Your task to perform on an android device: Open Google Chrome Image 0: 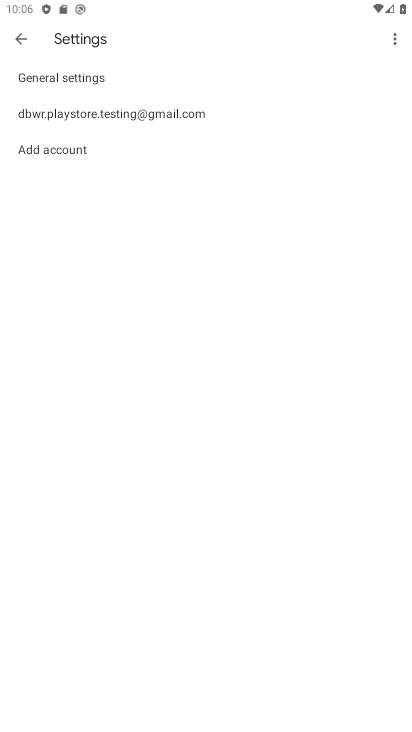
Step 0: press home button
Your task to perform on an android device: Open Google Chrome Image 1: 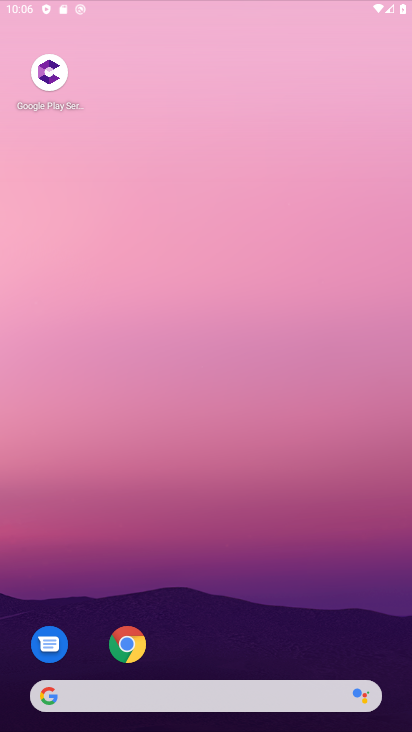
Step 1: drag from (373, 642) to (300, 54)
Your task to perform on an android device: Open Google Chrome Image 2: 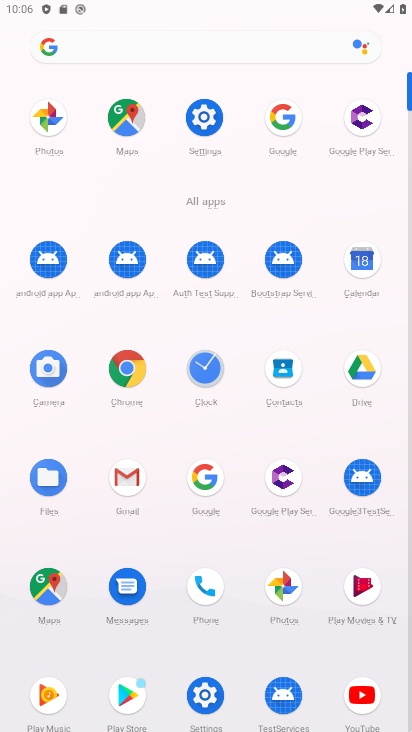
Step 2: click (119, 370)
Your task to perform on an android device: Open Google Chrome Image 3: 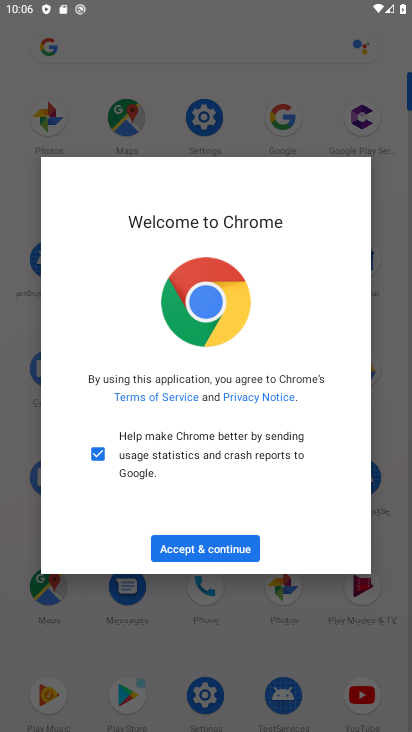
Step 3: click (198, 557)
Your task to perform on an android device: Open Google Chrome Image 4: 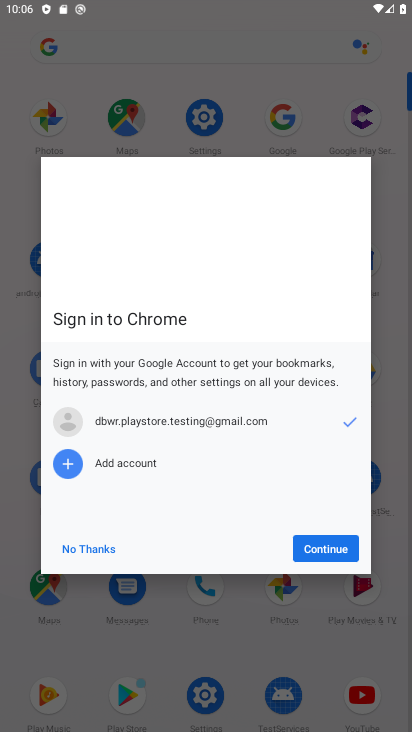
Step 4: click (319, 558)
Your task to perform on an android device: Open Google Chrome Image 5: 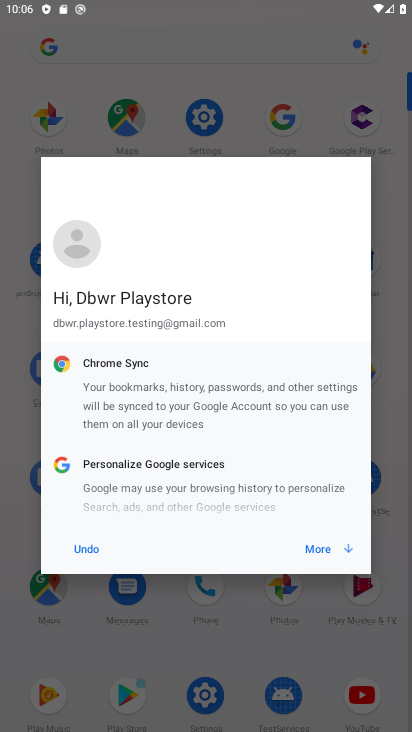
Step 5: click (319, 557)
Your task to perform on an android device: Open Google Chrome Image 6: 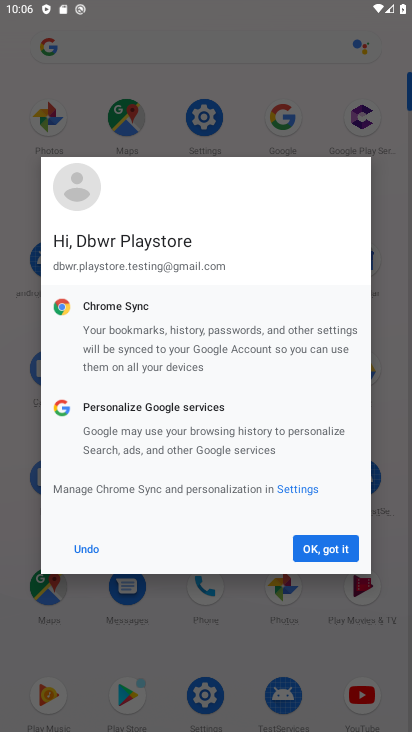
Step 6: click (319, 557)
Your task to perform on an android device: Open Google Chrome Image 7: 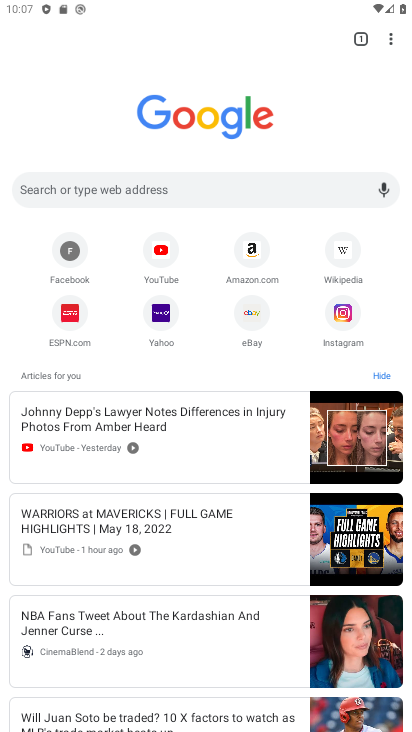
Step 7: task complete